Your task to perform on an android device: Go to Google maps Image 0: 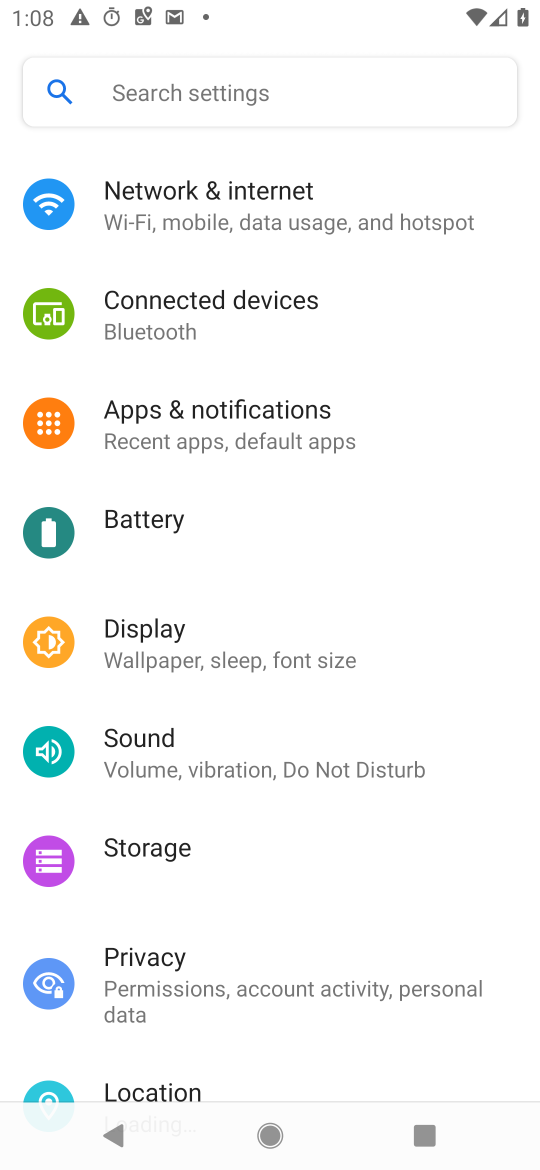
Step 0: drag from (286, 1030) to (257, 243)
Your task to perform on an android device: Go to Google maps Image 1: 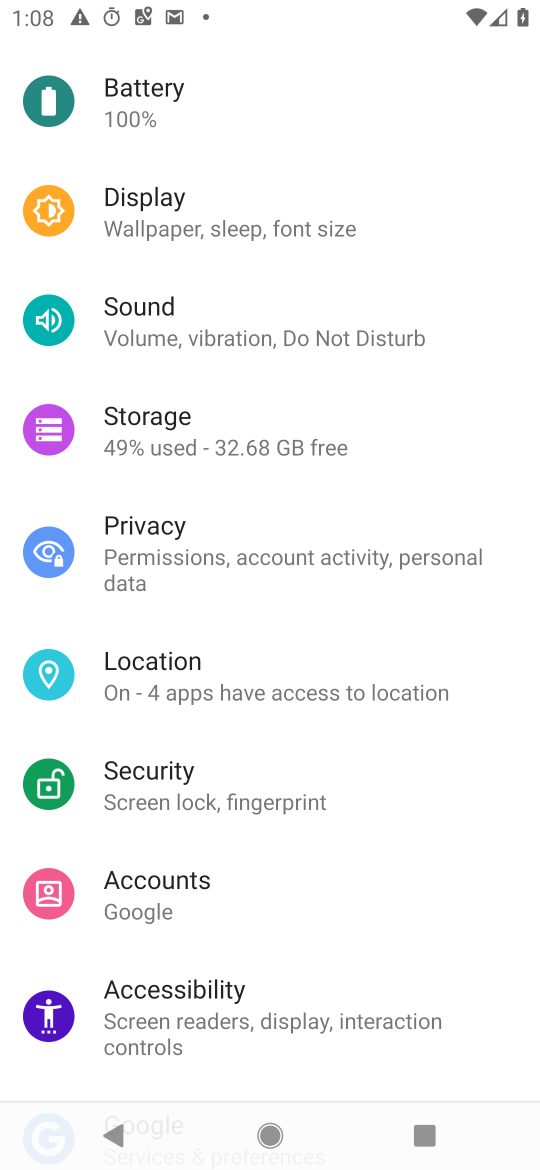
Step 1: press home button
Your task to perform on an android device: Go to Google maps Image 2: 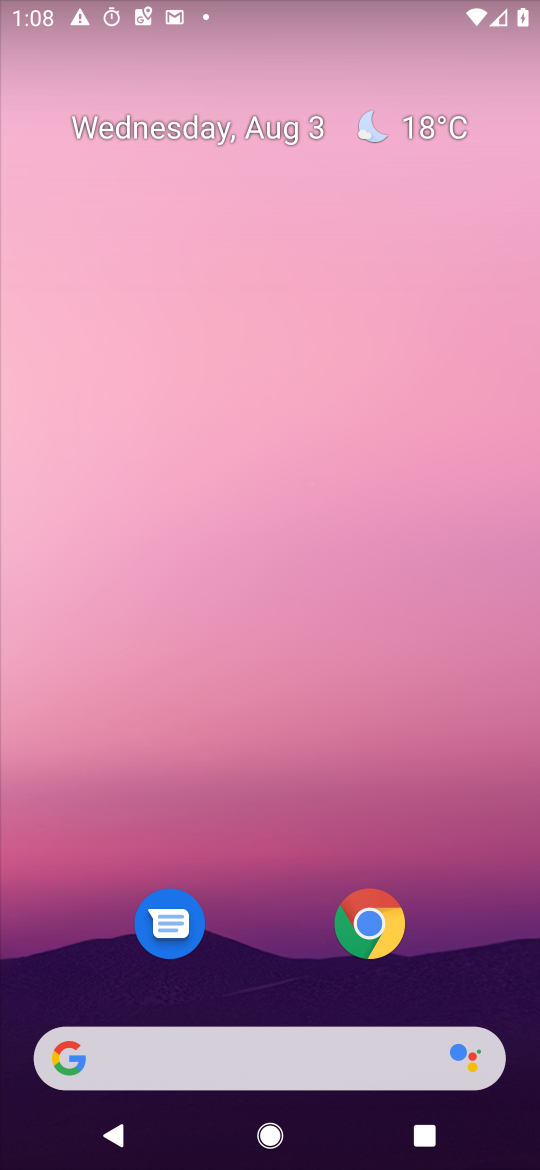
Step 2: drag from (328, 862) to (352, 322)
Your task to perform on an android device: Go to Google maps Image 3: 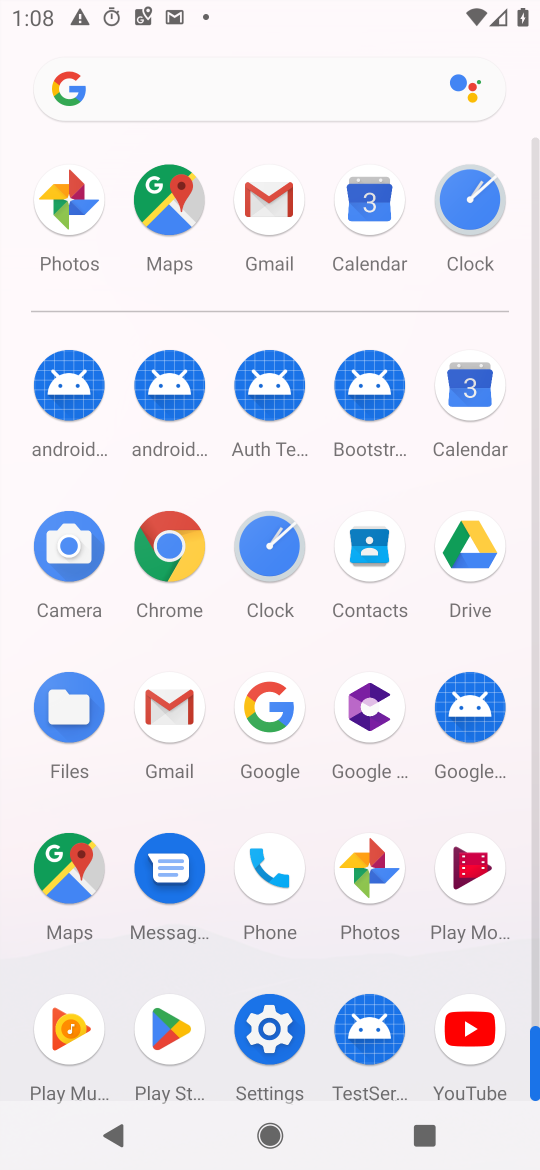
Step 3: click (52, 846)
Your task to perform on an android device: Go to Google maps Image 4: 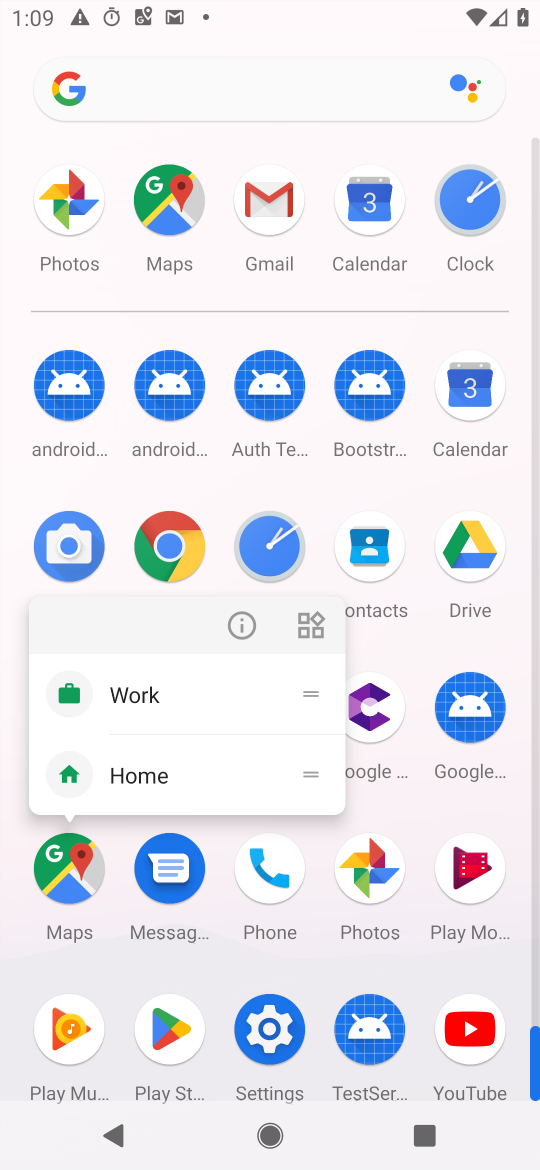
Step 4: click (234, 635)
Your task to perform on an android device: Go to Google maps Image 5: 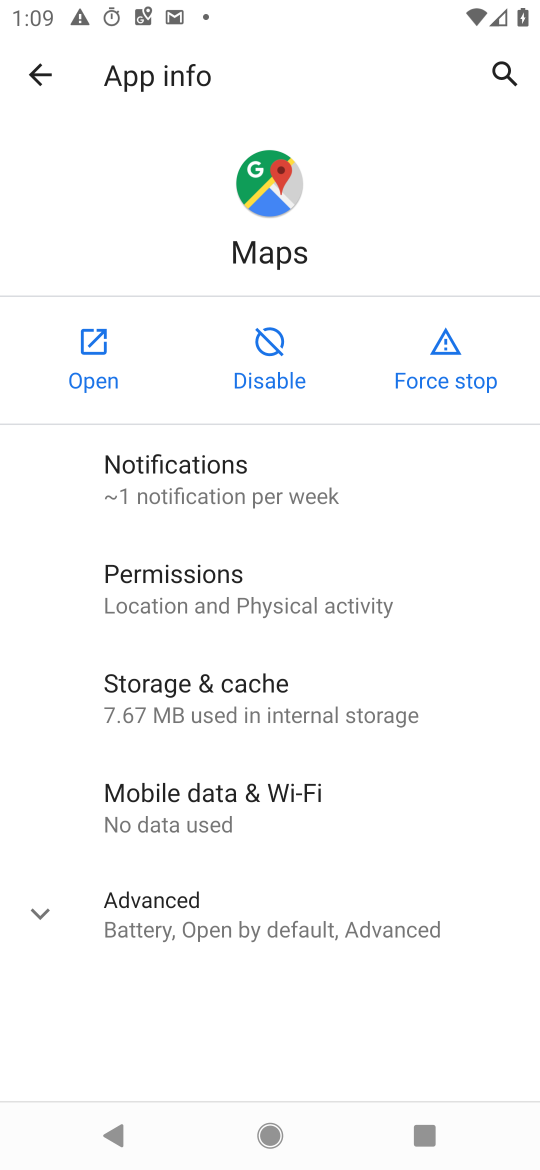
Step 5: click (109, 331)
Your task to perform on an android device: Go to Google maps Image 6: 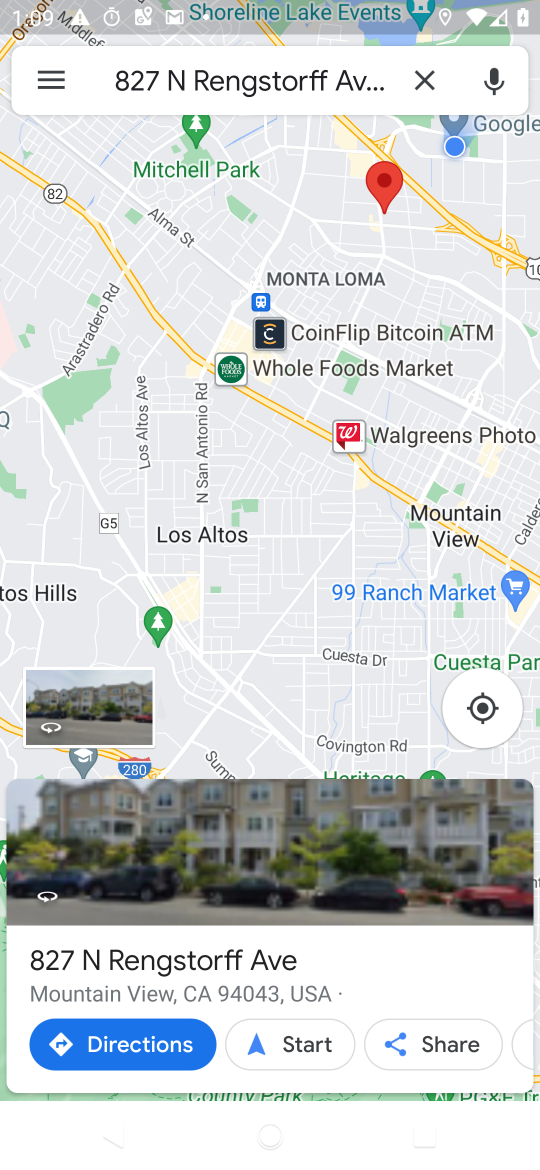
Step 6: task complete